Your task to perform on an android device: set default search engine in the chrome app Image 0: 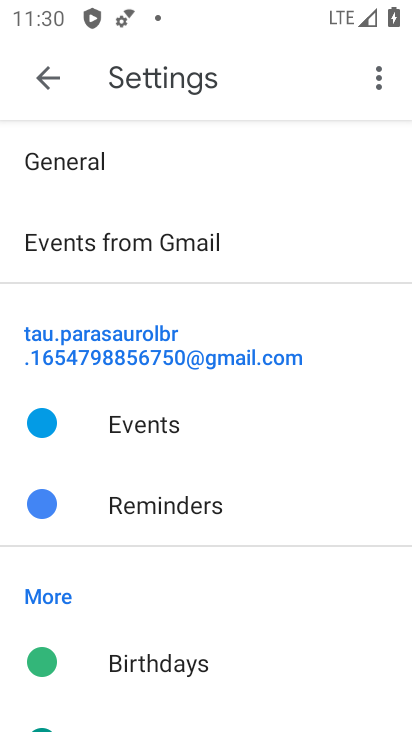
Step 0: click (39, 63)
Your task to perform on an android device: set default search engine in the chrome app Image 1: 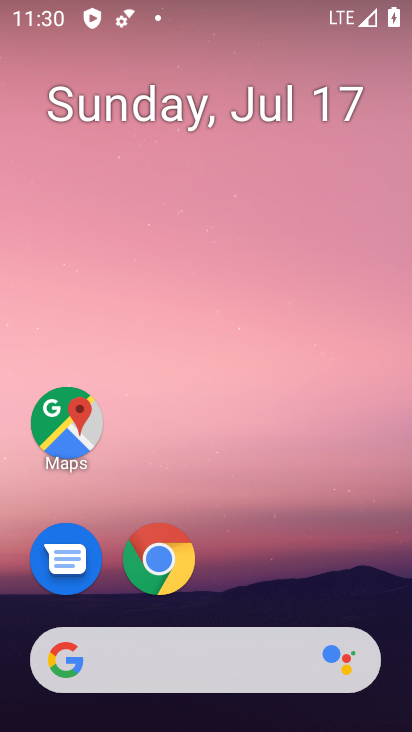
Step 1: click (152, 578)
Your task to perform on an android device: set default search engine in the chrome app Image 2: 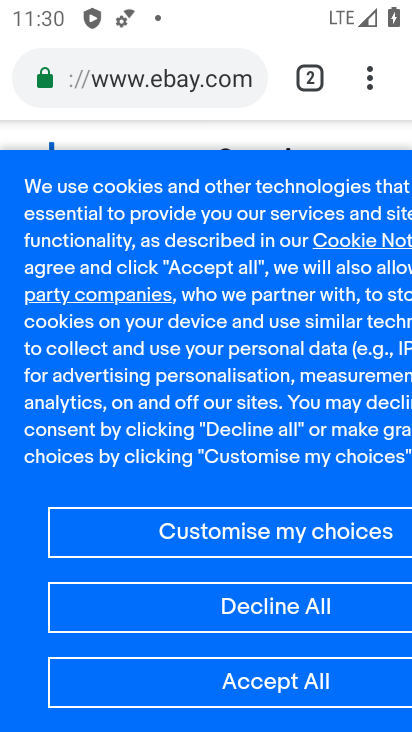
Step 2: drag from (364, 73) to (119, 624)
Your task to perform on an android device: set default search engine in the chrome app Image 3: 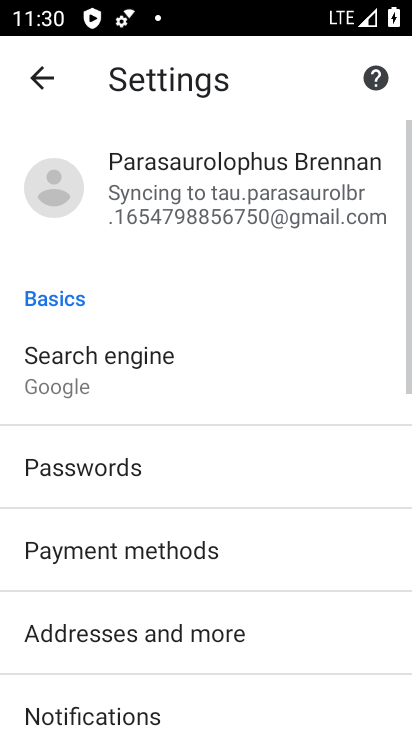
Step 3: click (102, 380)
Your task to perform on an android device: set default search engine in the chrome app Image 4: 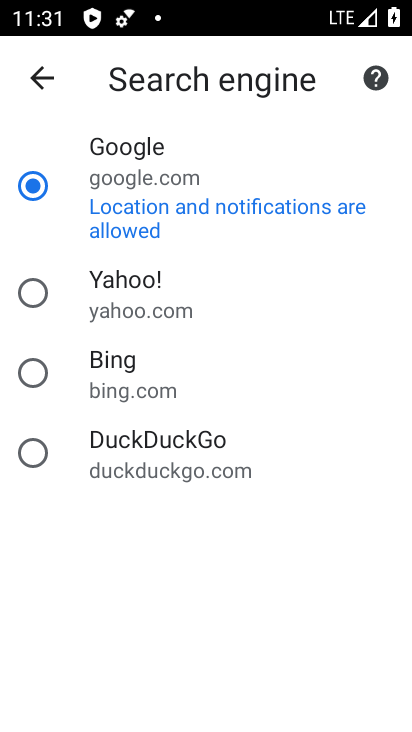
Step 4: click (34, 286)
Your task to perform on an android device: set default search engine in the chrome app Image 5: 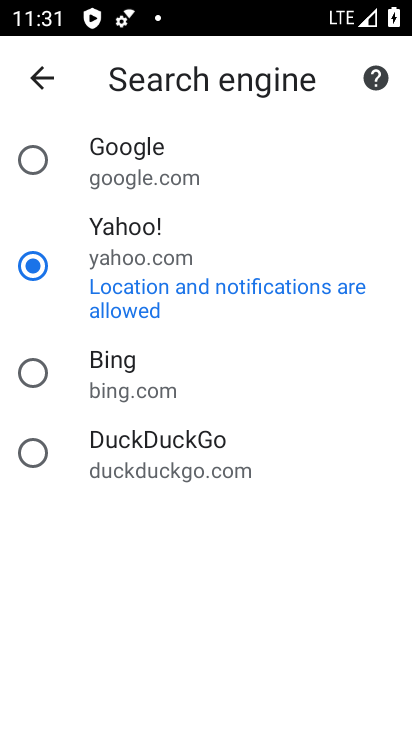
Step 5: task complete